Your task to perform on an android device: open app "Truecaller" Image 0: 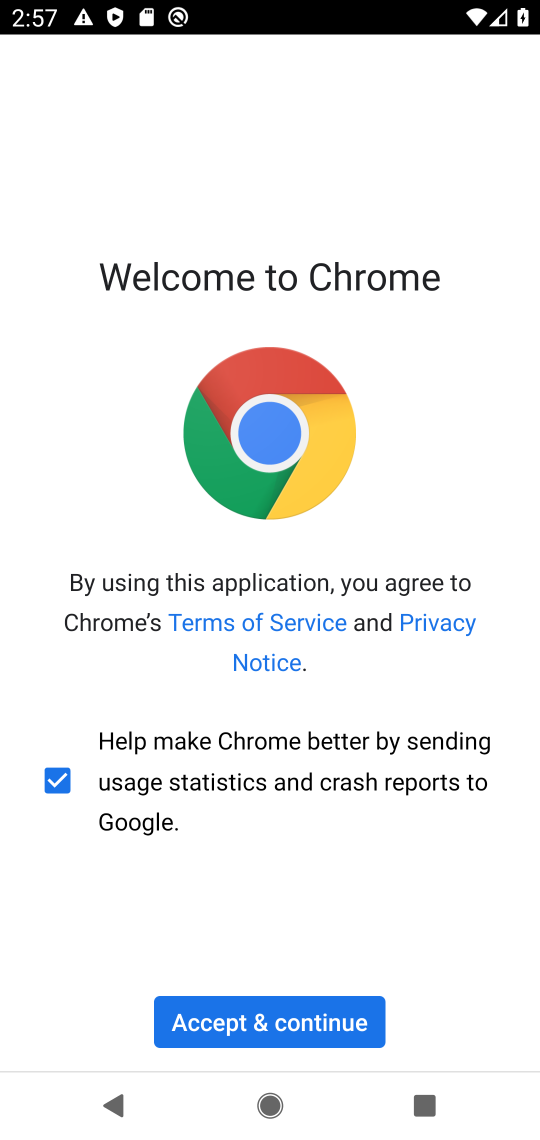
Step 0: press home button
Your task to perform on an android device: open app "Truecaller" Image 1: 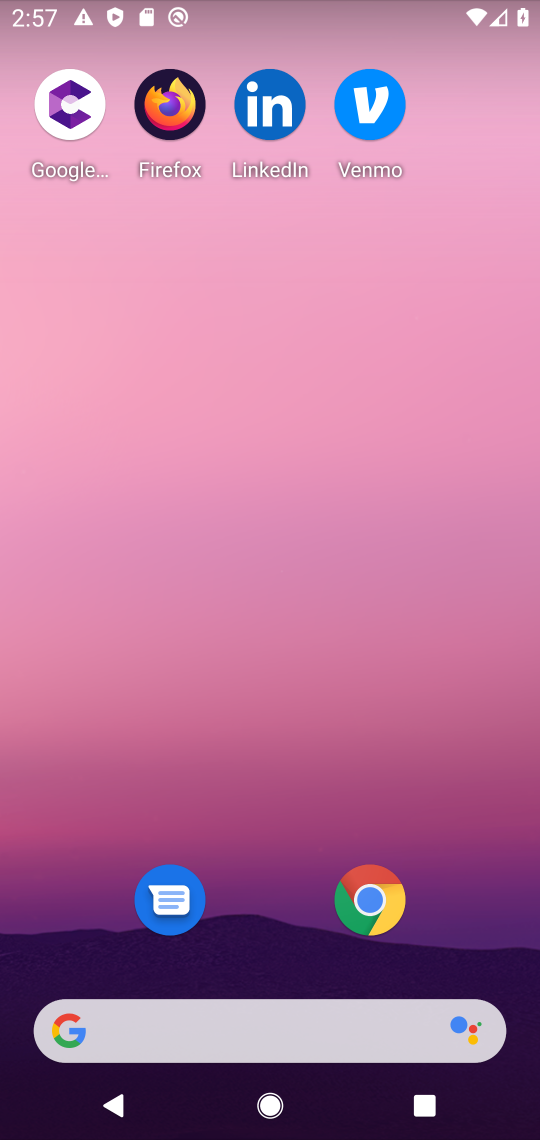
Step 1: drag from (279, 992) to (320, 210)
Your task to perform on an android device: open app "Truecaller" Image 2: 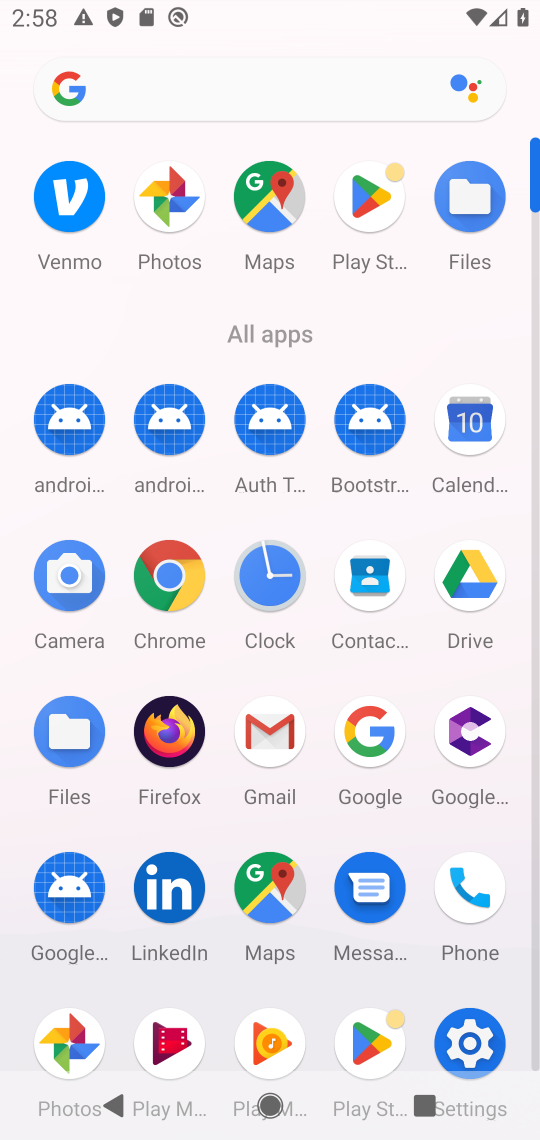
Step 2: click (389, 1037)
Your task to perform on an android device: open app "Truecaller" Image 3: 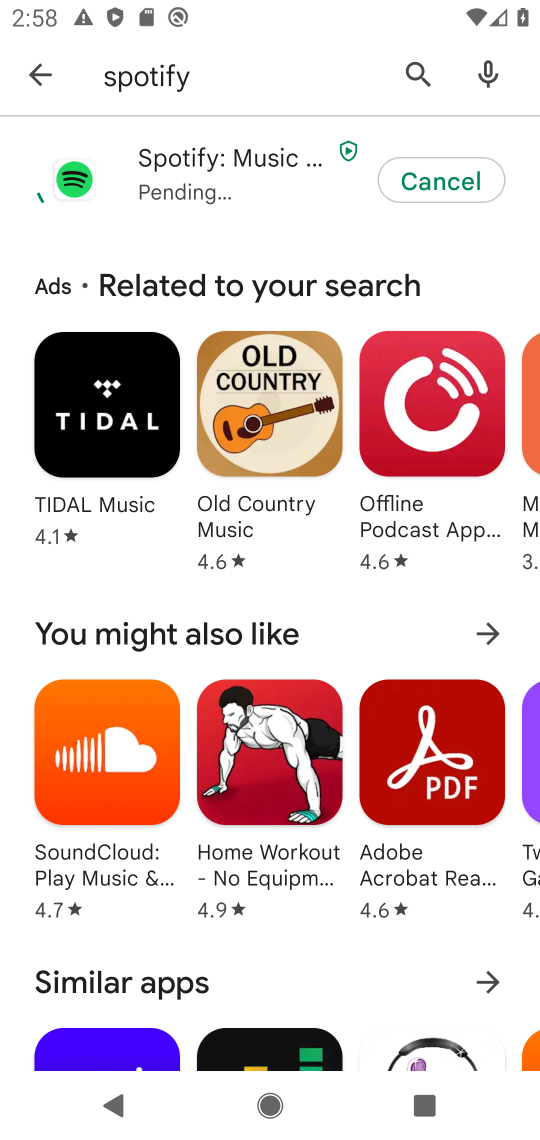
Step 3: click (426, 89)
Your task to perform on an android device: open app "Truecaller" Image 4: 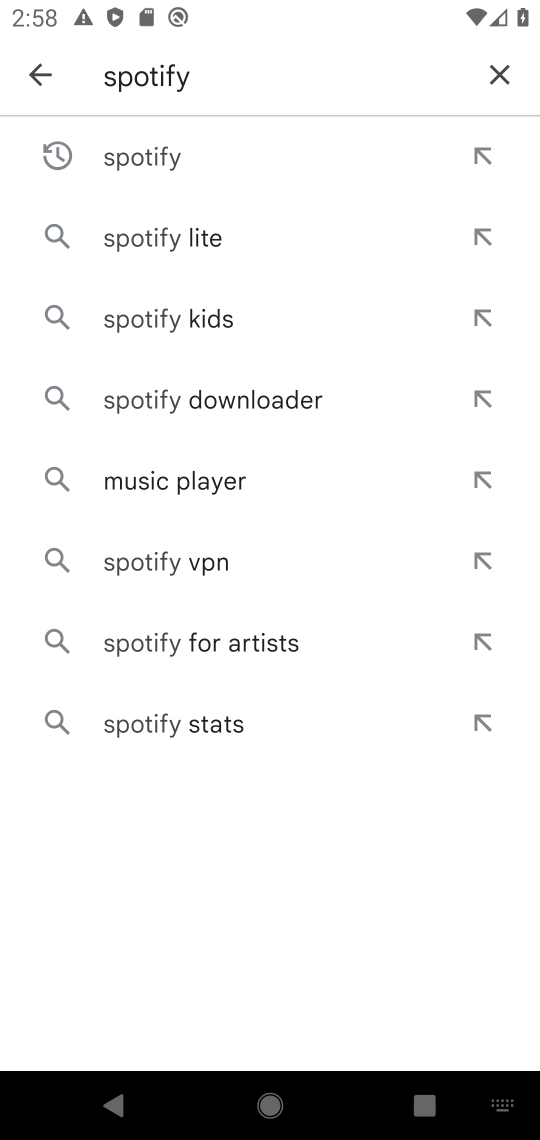
Step 4: click (489, 89)
Your task to perform on an android device: open app "Truecaller" Image 5: 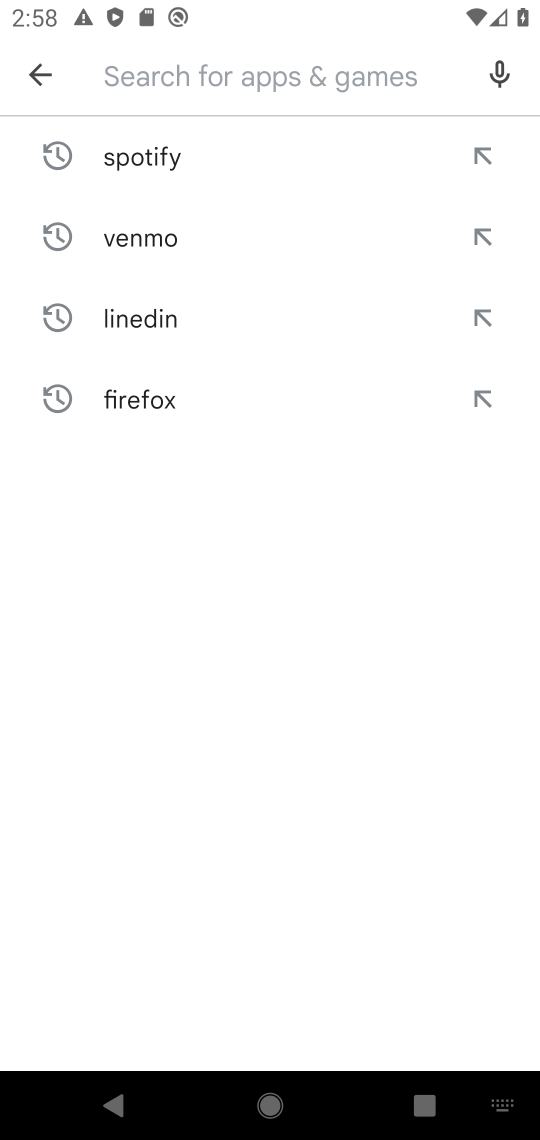
Step 5: type "truecaller"
Your task to perform on an android device: open app "Truecaller" Image 6: 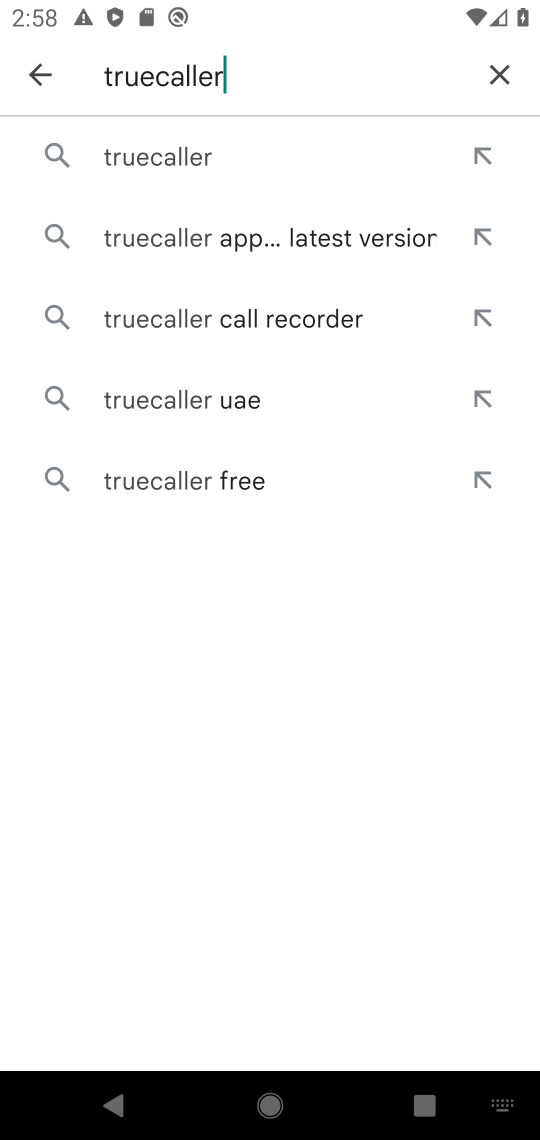
Step 6: click (344, 130)
Your task to perform on an android device: open app "Truecaller" Image 7: 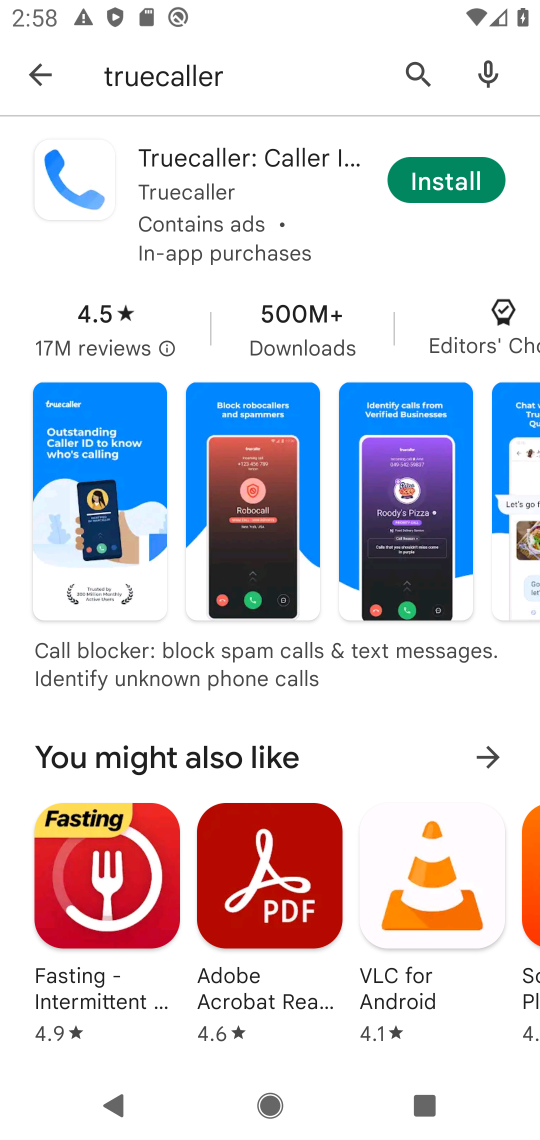
Step 7: click (452, 189)
Your task to perform on an android device: open app "Truecaller" Image 8: 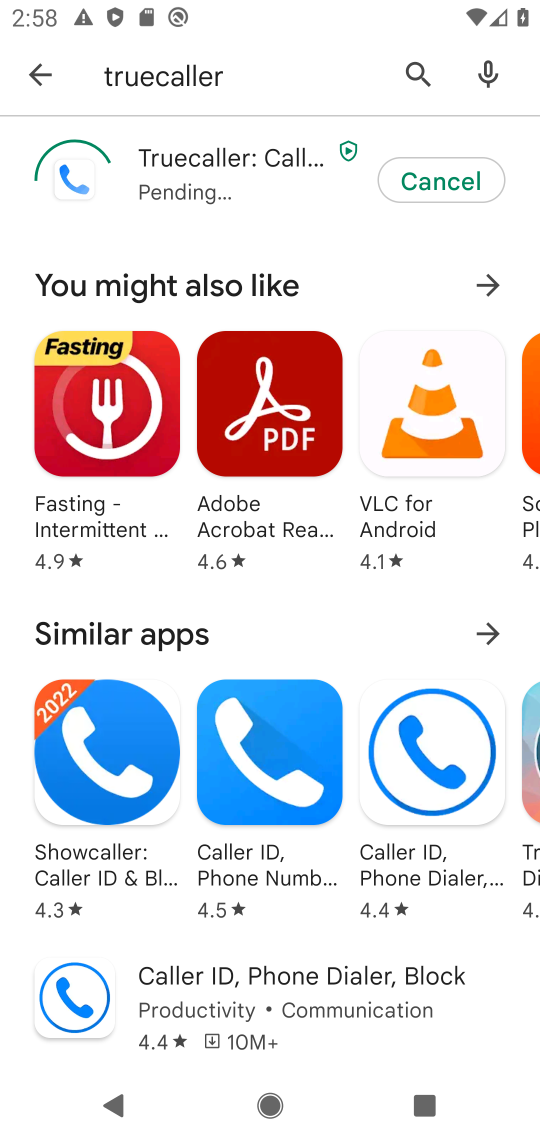
Step 8: task complete